Your task to perform on an android device: Open Youtube and go to the subscriptions tab Image 0: 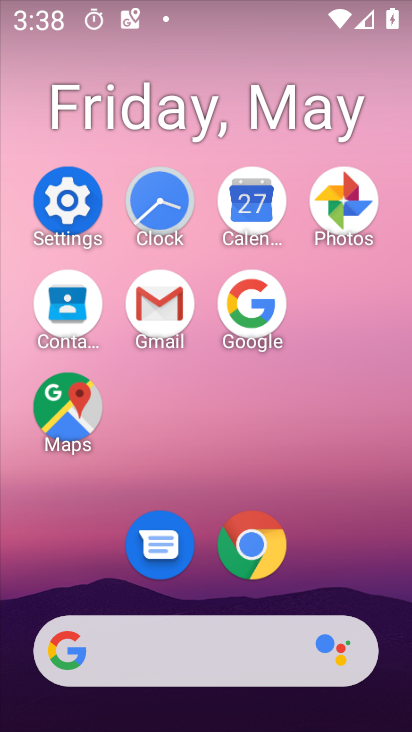
Step 0: drag from (318, 560) to (354, 113)
Your task to perform on an android device: Open Youtube and go to the subscriptions tab Image 1: 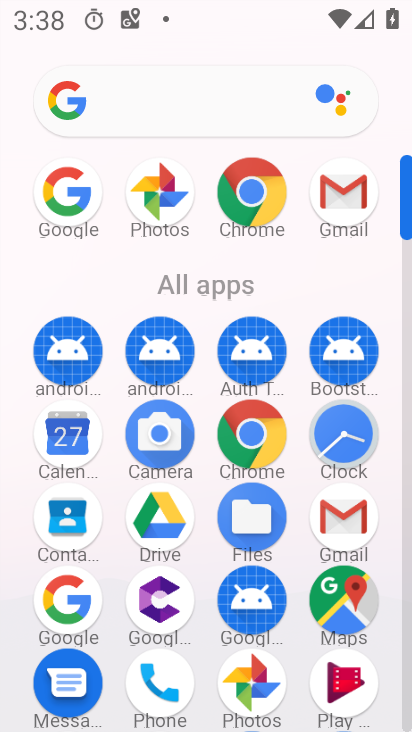
Step 1: drag from (251, 613) to (296, 144)
Your task to perform on an android device: Open Youtube and go to the subscriptions tab Image 2: 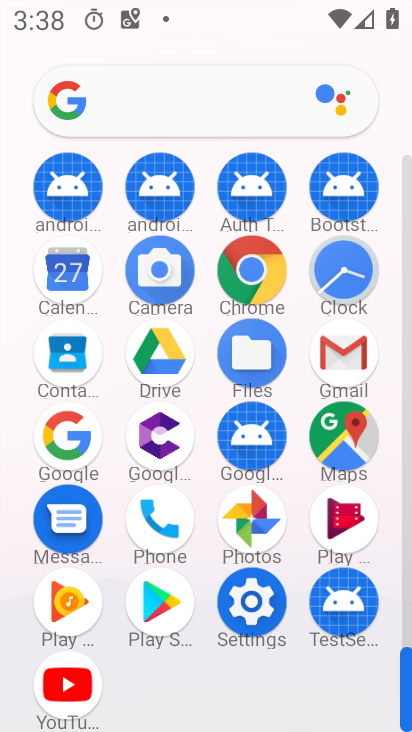
Step 2: click (71, 695)
Your task to perform on an android device: Open Youtube and go to the subscriptions tab Image 3: 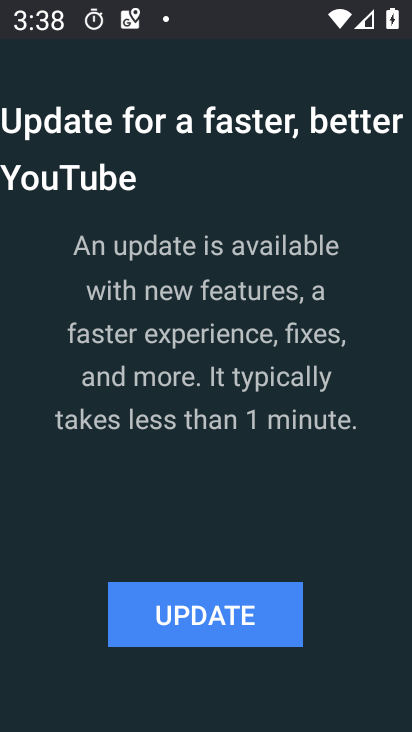
Step 3: click (236, 633)
Your task to perform on an android device: Open Youtube and go to the subscriptions tab Image 4: 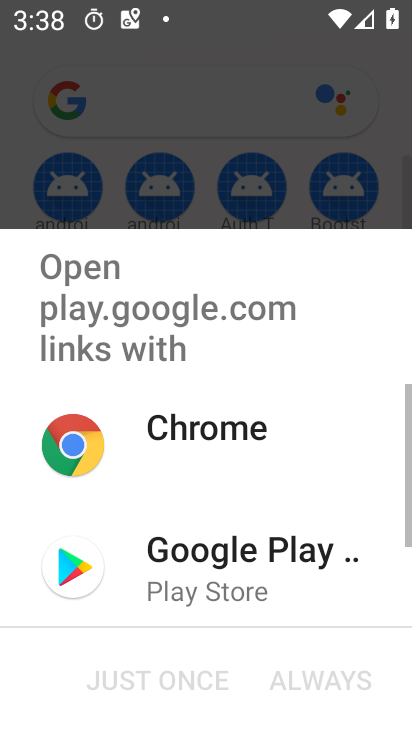
Step 4: click (220, 572)
Your task to perform on an android device: Open Youtube and go to the subscriptions tab Image 5: 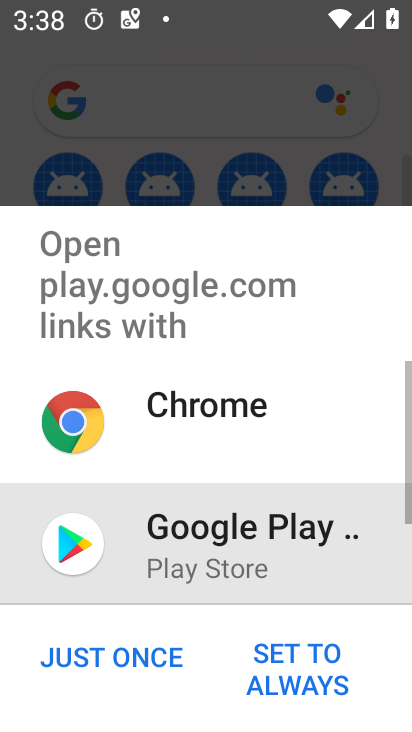
Step 5: click (220, 572)
Your task to perform on an android device: Open Youtube and go to the subscriptions tab Image 6: 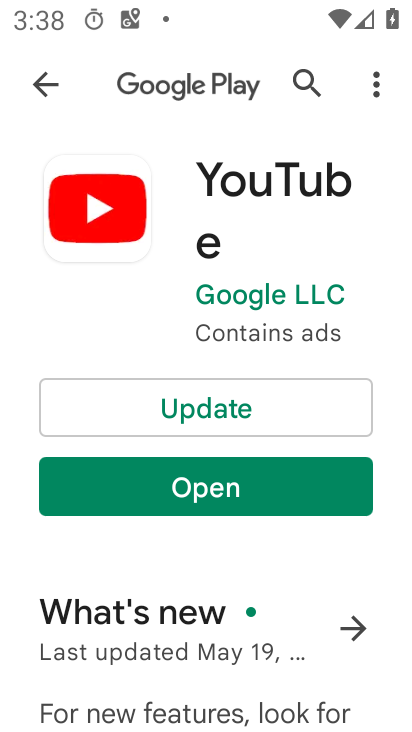
Step 6: click (252, 413)
Your task to perform on an android device: Open Youtube and go to the subscriptions tab Image 7: 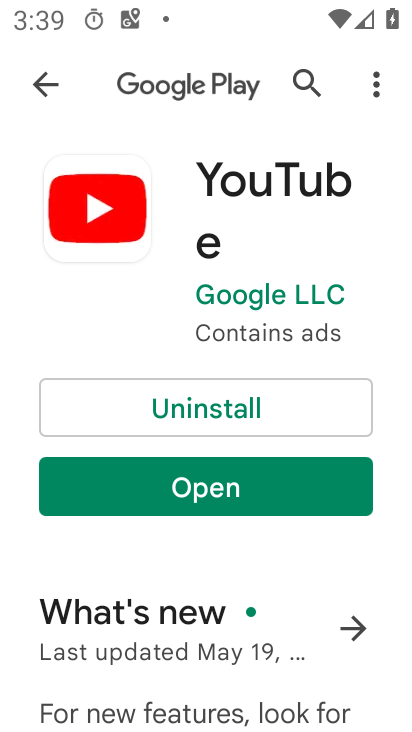
Step 7: click (277, 485)
Your task to perform on an android device: Open Youtube and go to the subscriptions tab Image 8: 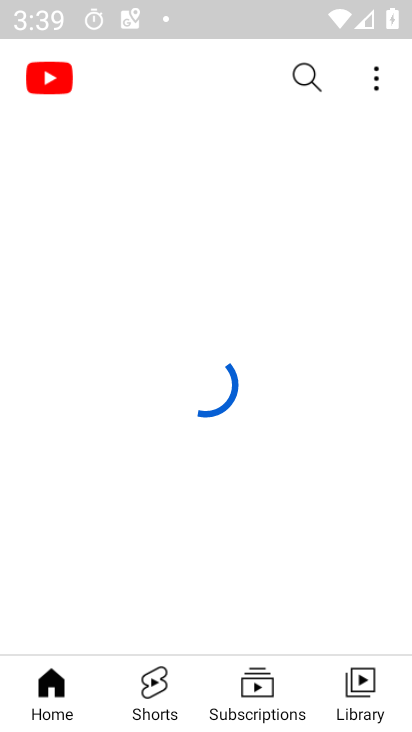
Step 8: click (246, 698)
Your task to perform on an android device: Open Youtube and go to the subscriptions tab Image 9: 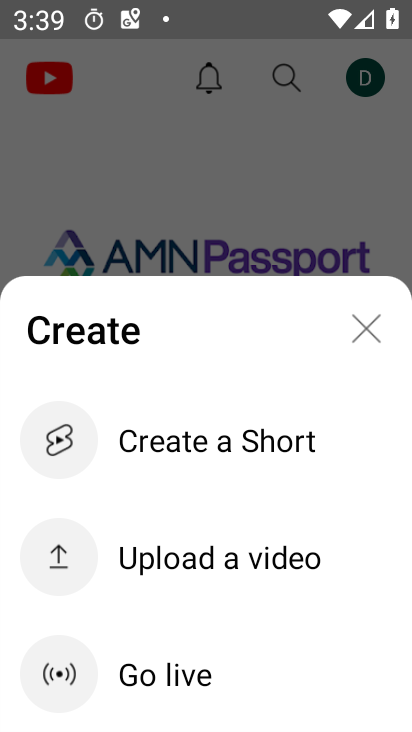
Step 9: task complete